Your task to perform on an android device: Open Maps and search for coffee Image 0: 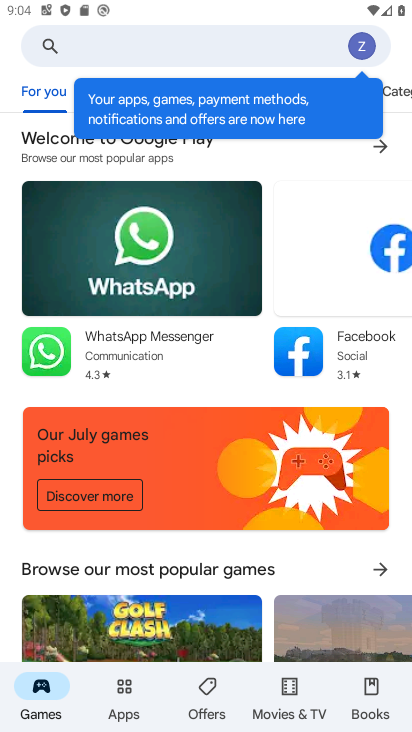
Step 0: press home button
Your task to perform on an android device: Open Maps and search for coffee Image 1: 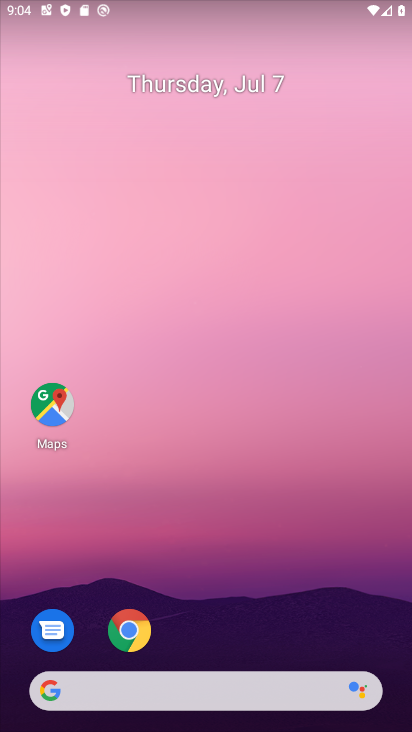
Step 1: click (52, 389)
Your task to perform on an android device: Open Maps and search for coffee Image 2: 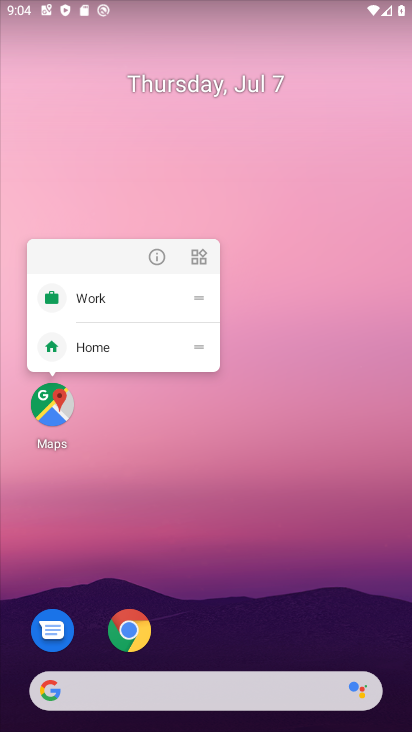
Step 2: click (47, 404)
Your task to perform on an android device: Open Maps and search for coffee Image 3: 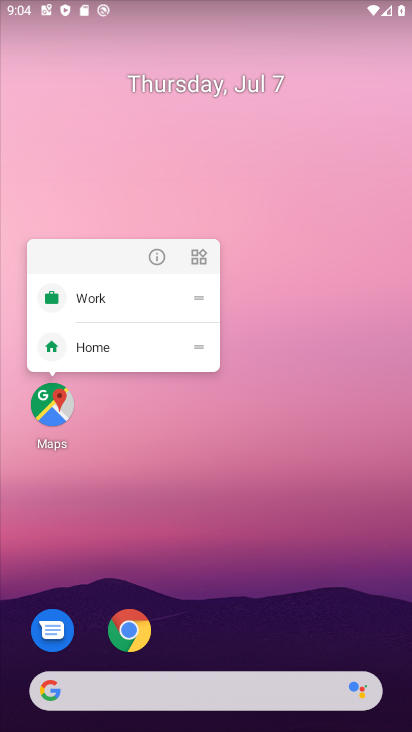
Step 3: click (278, 573)
Your task to perform on an android device: Open Maps and search for coffee Image 4: 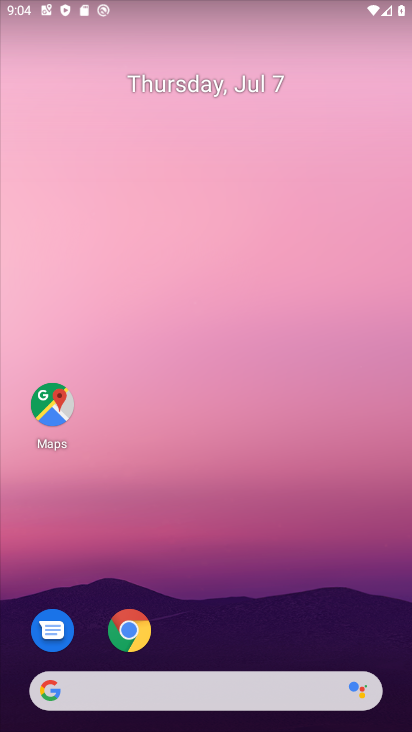
Step 4: drag from (262, 635) to (274, 65)
Your task to perform on an android device: Open Maps and search for coffee Image 5: 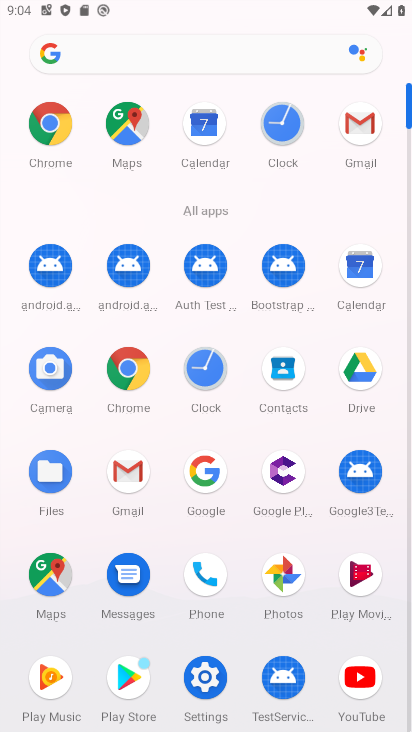
Step 5: click (53, 564)
Your task to perform on an android device: Open Maps and search for coffee Image 6: 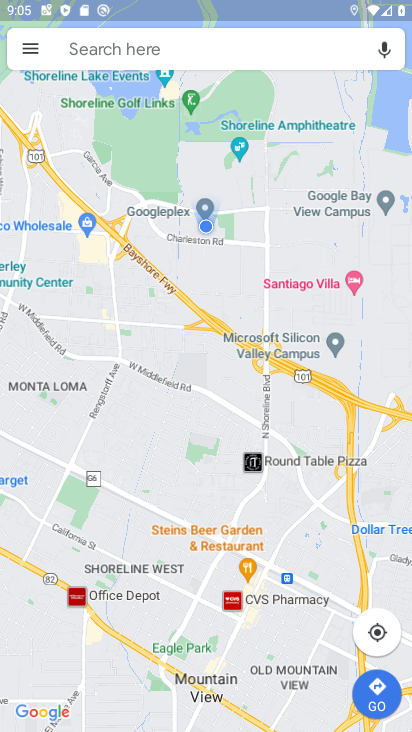
Step 6: click (171, 40)
Your task to perform on an android device: Open Maps and search for coffee Image 7: 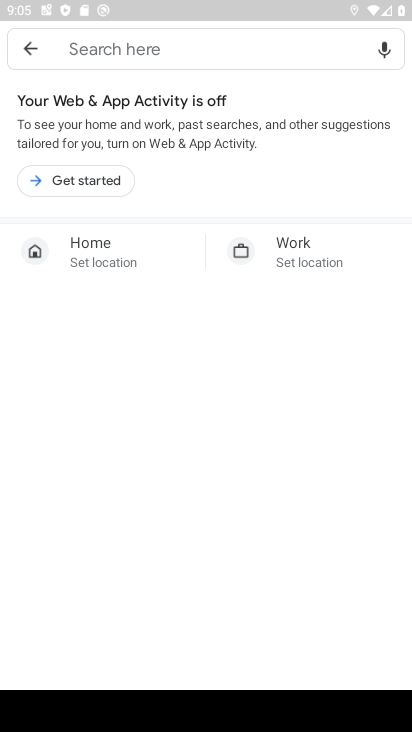
Step 7: type "coffee"
Your task to perform on an android device: Open Maps and search for coffee Image 8: 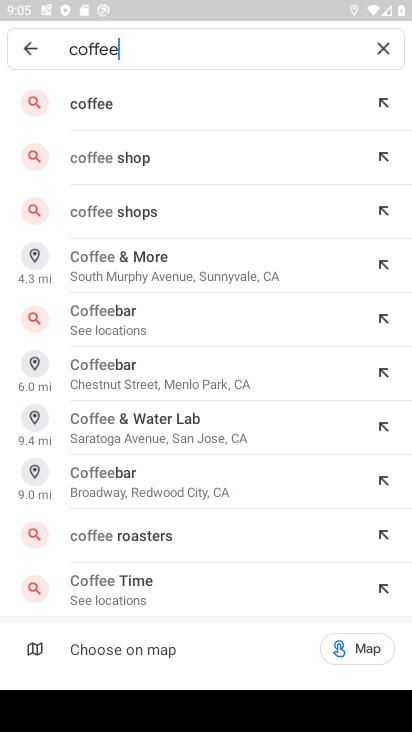
Step 8: click (94, 104)
Your task to perform on an android device: Open Maps and search for coffee Image 9: 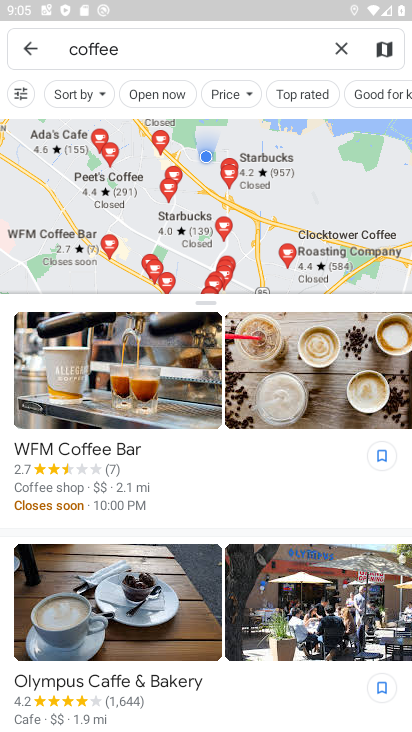
Step 9: task complete